Your task to perform on an android device: Open accessibility settings Image 0: 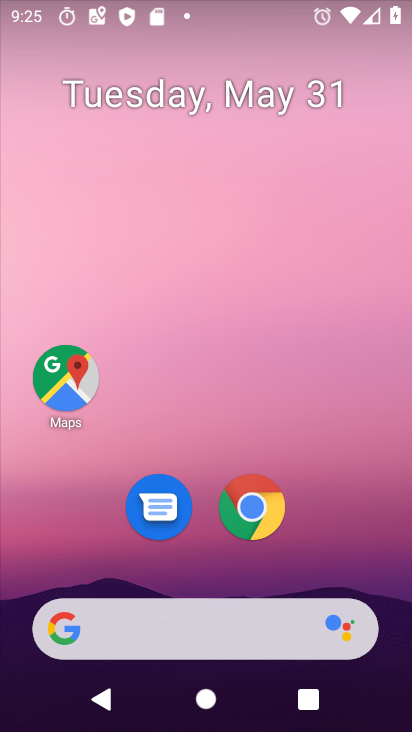
Step 0: drag from (355, 586) to (316, 33)
Your task to perform on an android device: Open accessibility settings Image 1: 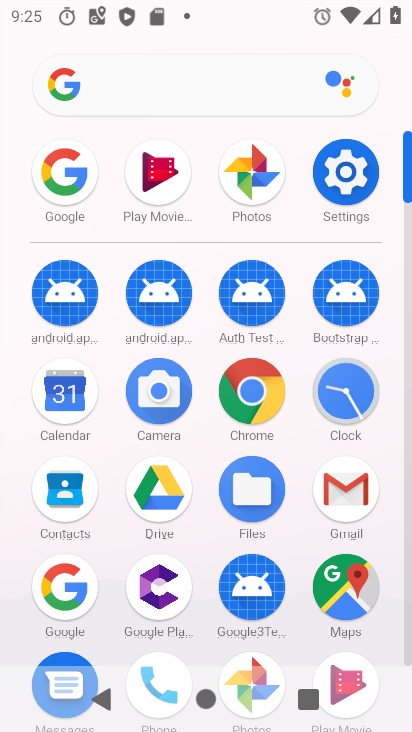
Step 1: click (344, 182)
Your task to perform on an android device: Open accessibility settings Image 2: 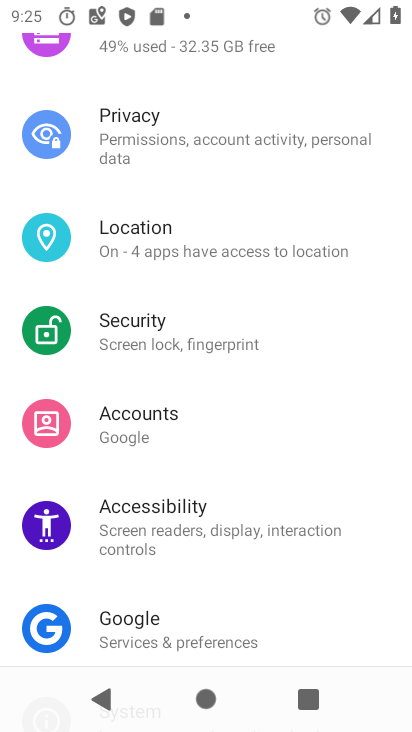
Step 2: click (152, 541)
Your task to perform on an android device: Open accessibility settings Image 3: 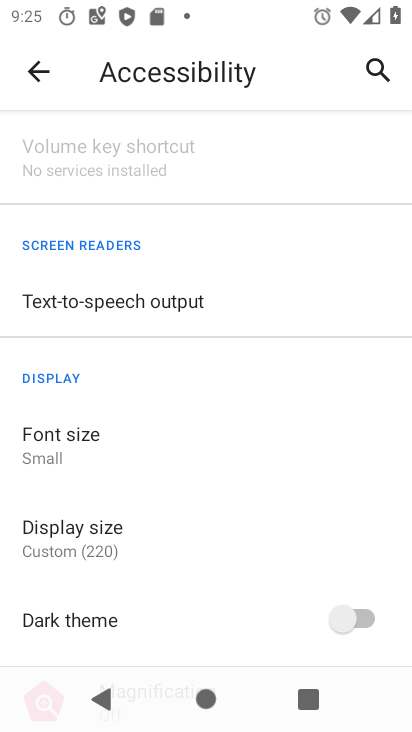
Step 3: task complete